Your task to perform on an android device: Go to notification settings Image 0: 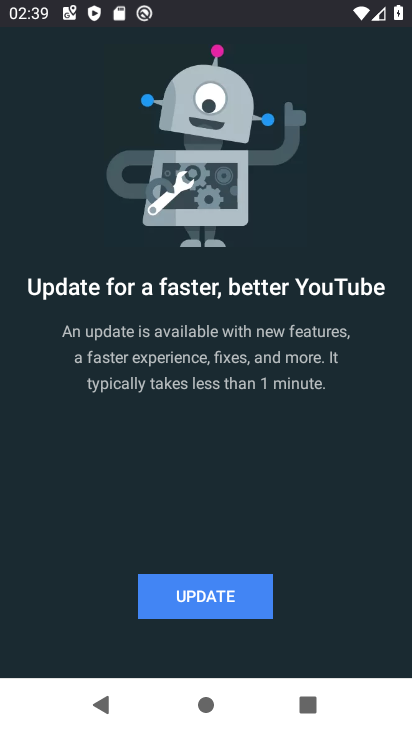
Step 0: click (350, 448)
Your task to perform on an android device: Go to notification settings Image 1: 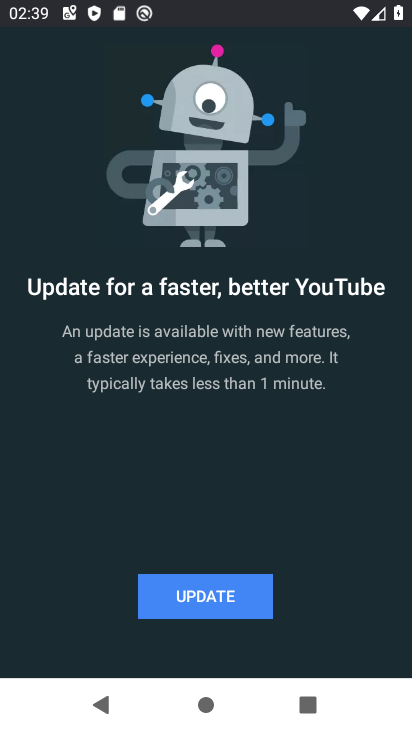
Step 1: press home button
Your task to perform on an android device: Go to notification settings Image 2: 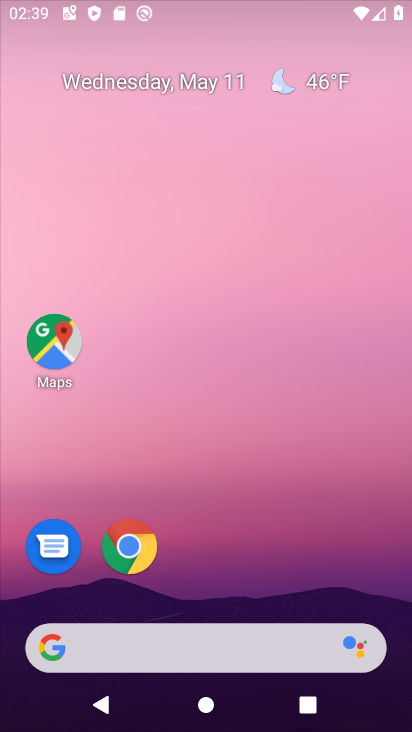
Step 2: drag from (215, 581) to (284, 261)
Your task to perform on an android device: Go to notification settings Image 3: 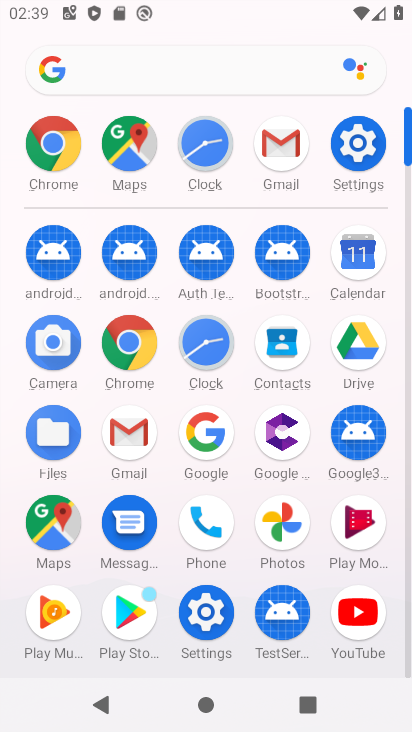
Step 3: click (357, 152)
Your task to perform on an android device: Go to notification settings Image 4: 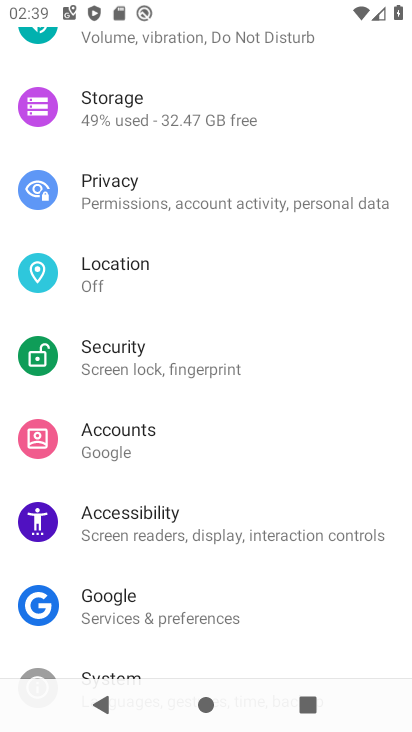
Step 4: drag from (200, 189) to (340, 697)
Your task to perform on an android device: Go to notification settings Image 5: 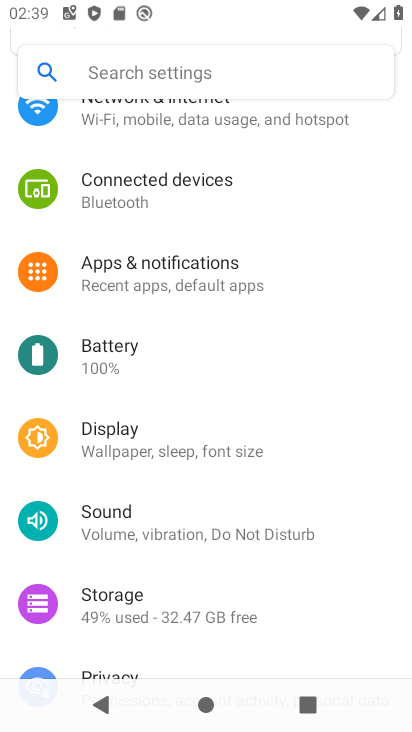
Step 5: click (154, 261)
Your task to perform on an android device: Go to notification settings Image 6: 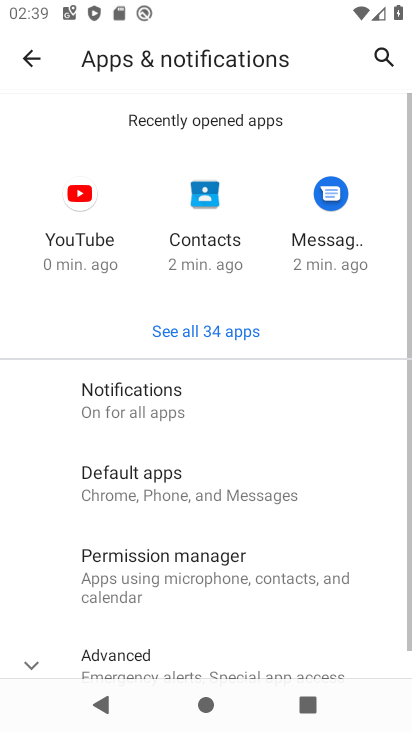
Step 6: click (222, 405)
Your task to perform on an android device: Go to notification settings Image 7: 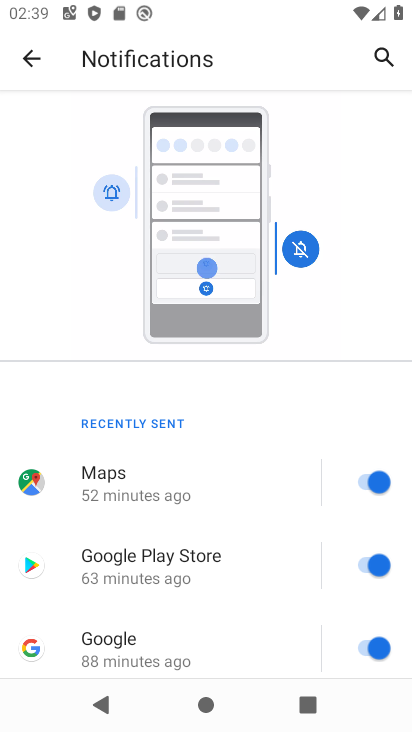
Step 7: task complete